Your task to perform on an android device: What's the news? Image 0: 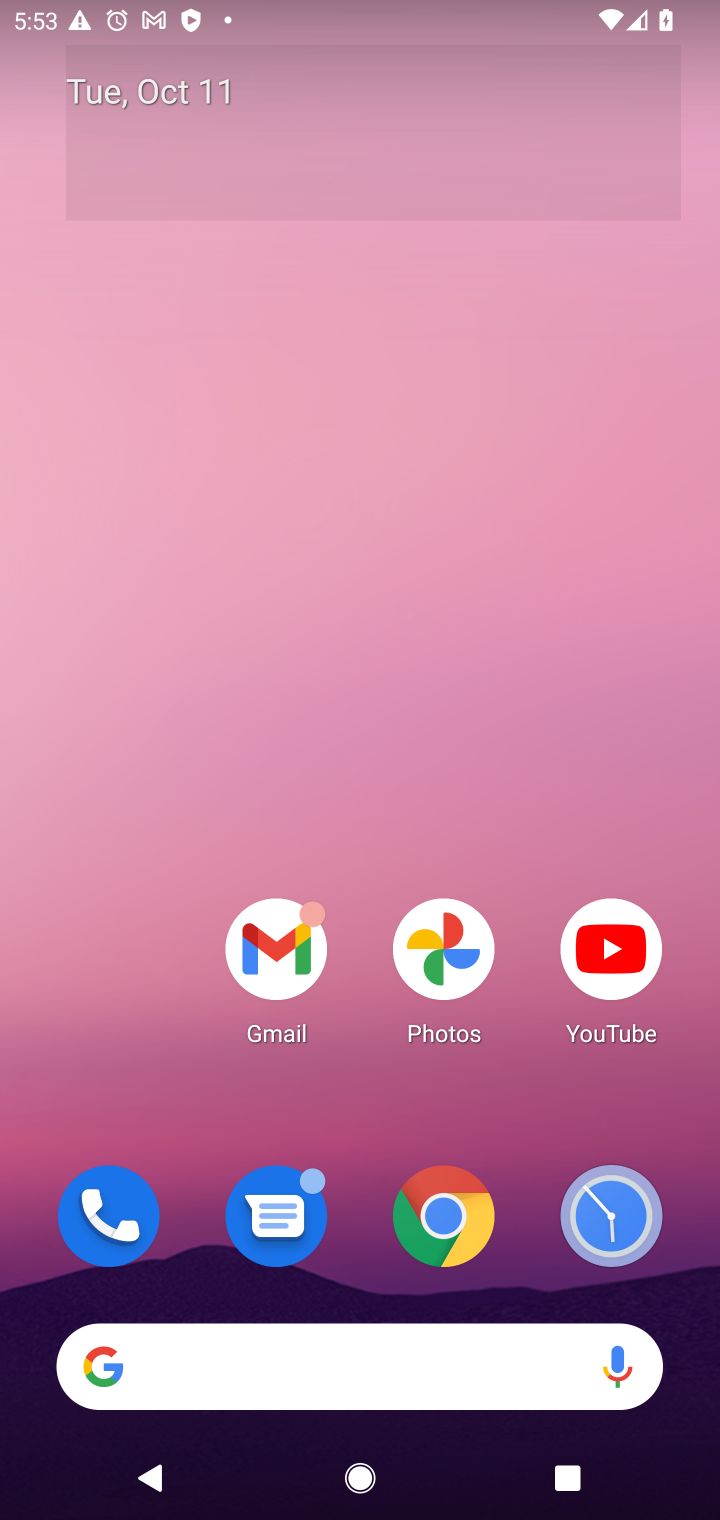
Step 0: click (465, 1210)
Your task to perform on an android device: What's the news? Image 1: 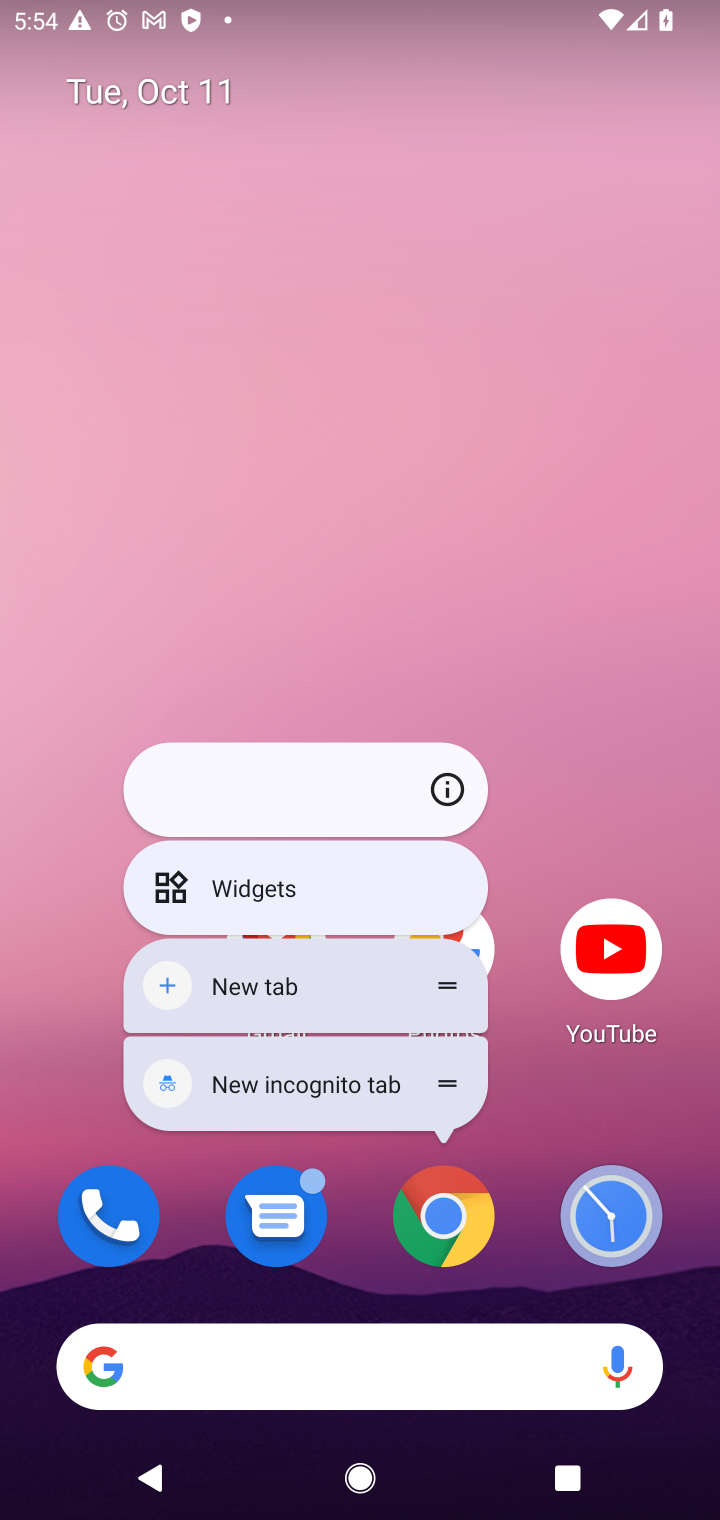
Step 1: click (465, 1210)
Your task to perform on an android device: What's the news? Image 2: 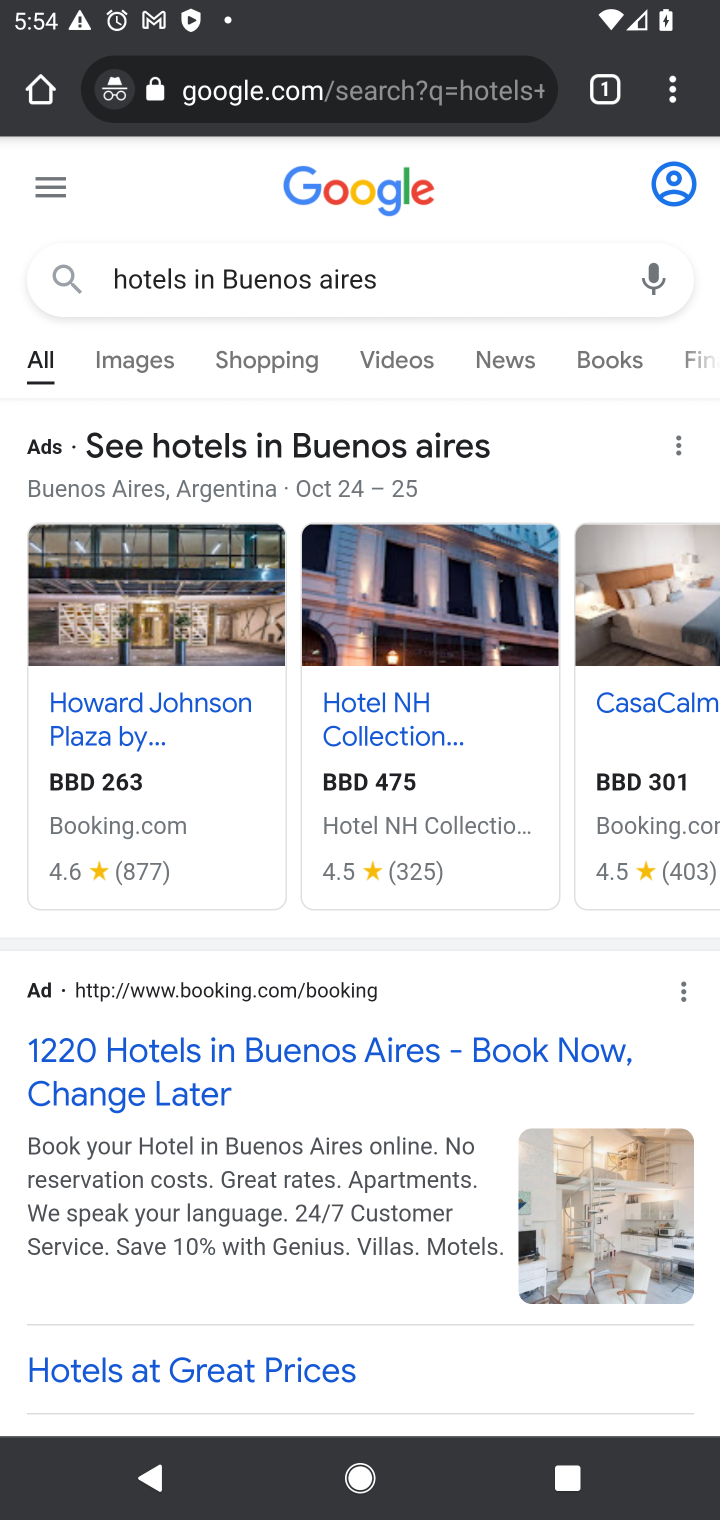
Step 2: click (507, 369)
Your task to perform on an android device: What's the news? Image 3: 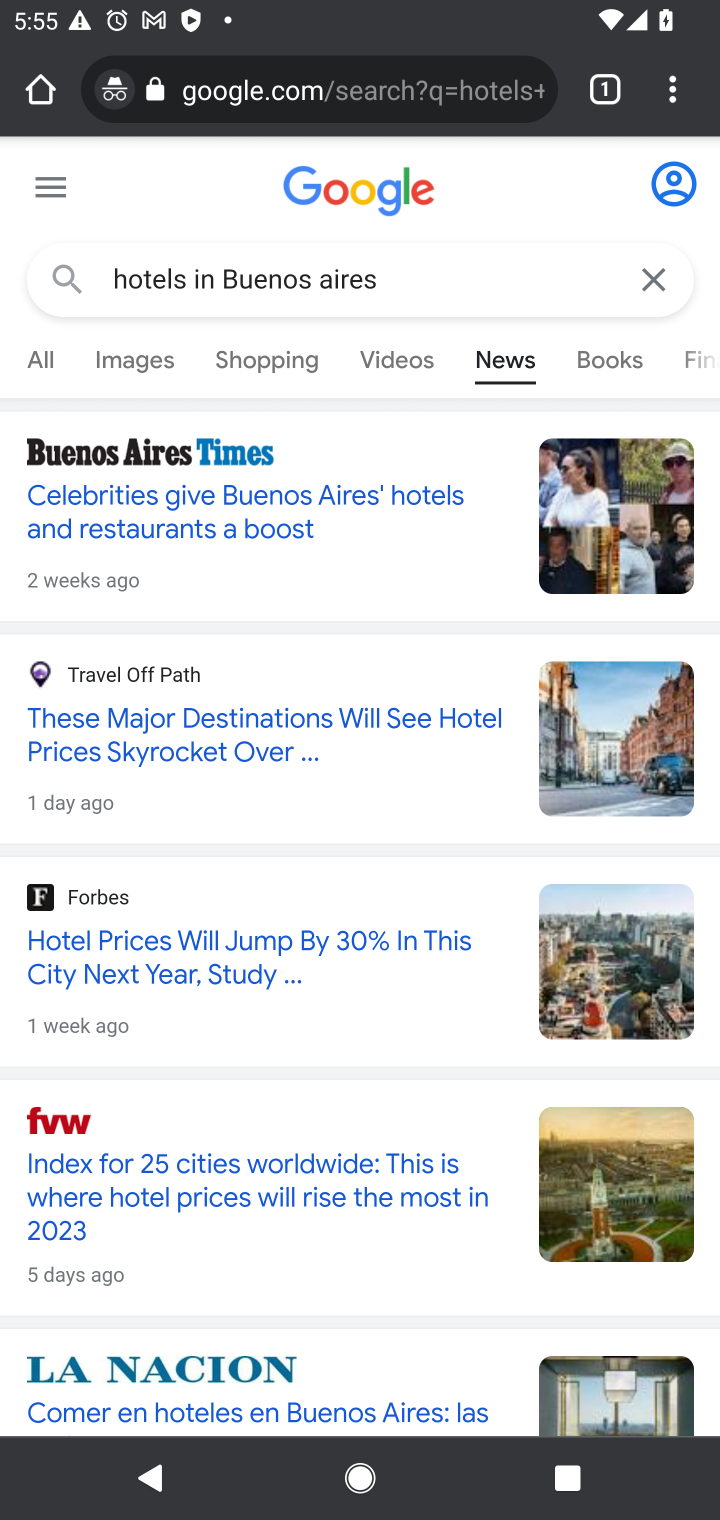
Step 3: task complete